Your task to perform on an android device: see tabs open on other devices in the chrome app Image 0: 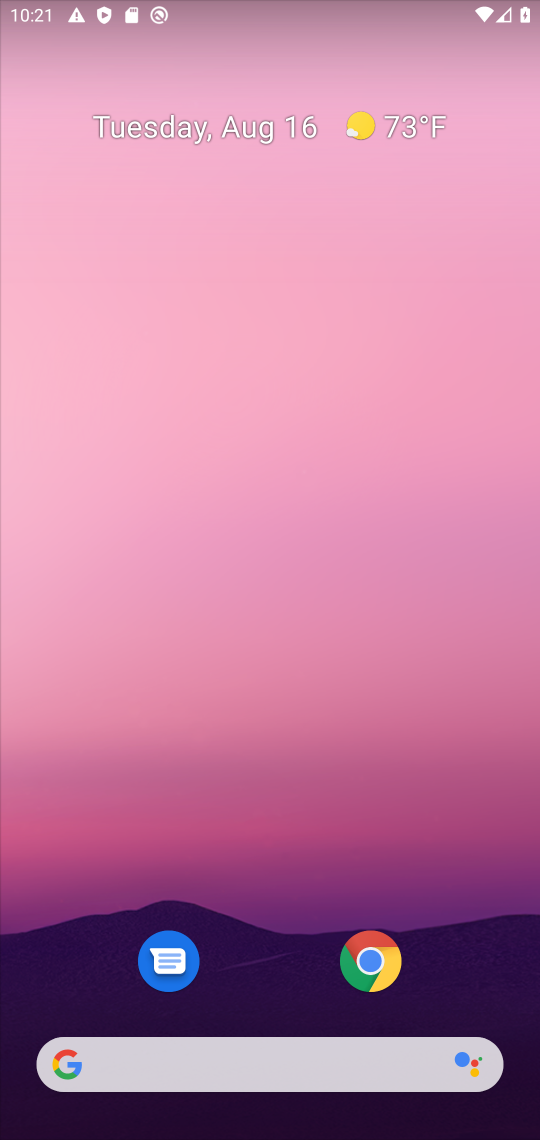
Step 0: click (295, 796)
Your task to perform on an android device: see tabs open on other devices in the chrome app Image 1: 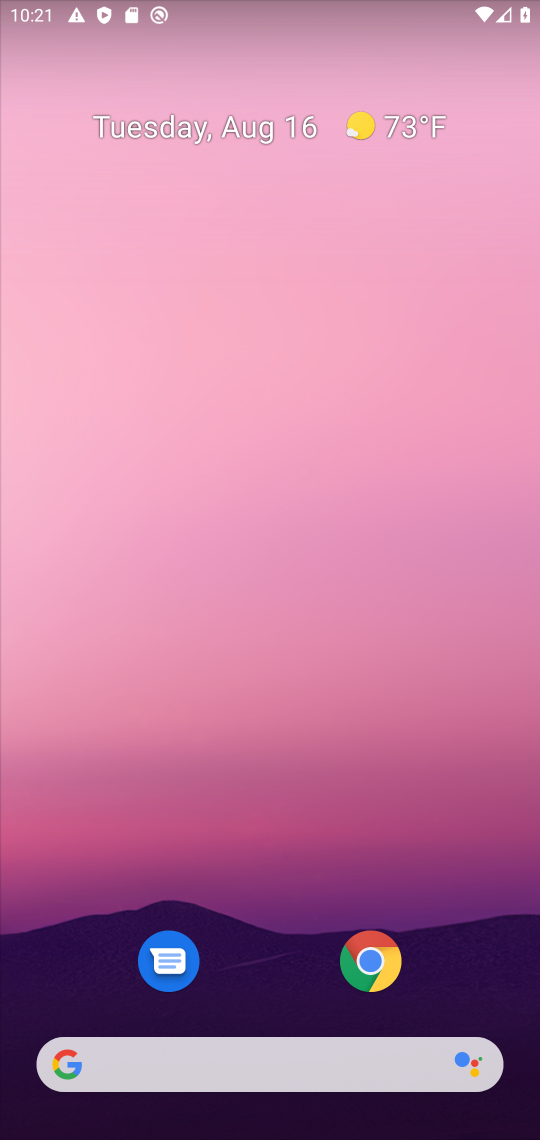
Step 1: click (379, 963)
Your task to perform on an android device: see tabs open on other devices in the chrome app Image 2: 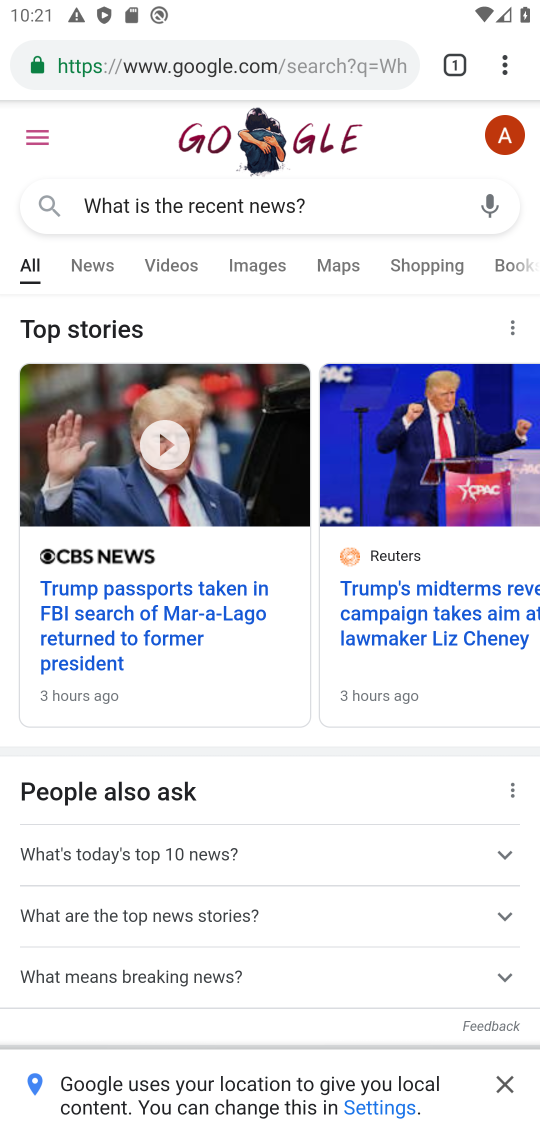
Step 2: task complete